Your task to perform on an android device: Turn off the flashlight Image 0: 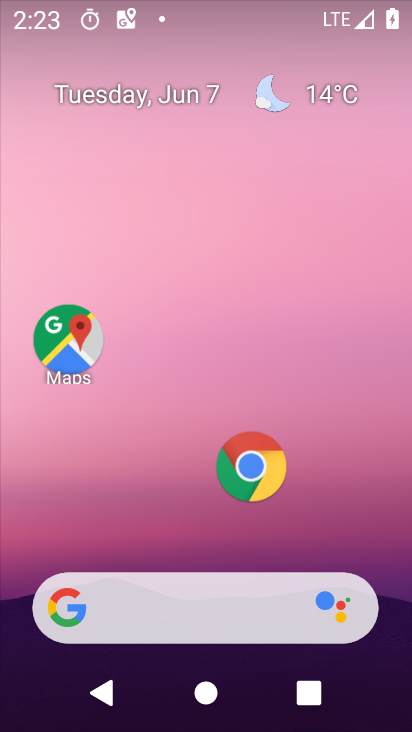
Step 0: drag from (224, 4) to (164, 527)
Your task to perform on an android device: Turn off the flashlight Image 1: 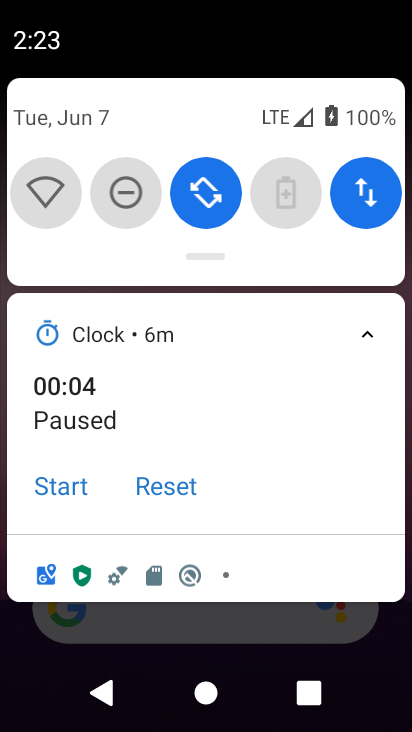
Step 1: drag from (206, 269) to (204, 687)
Your task to perform on an android device: Turn off the flashlight Image 2: 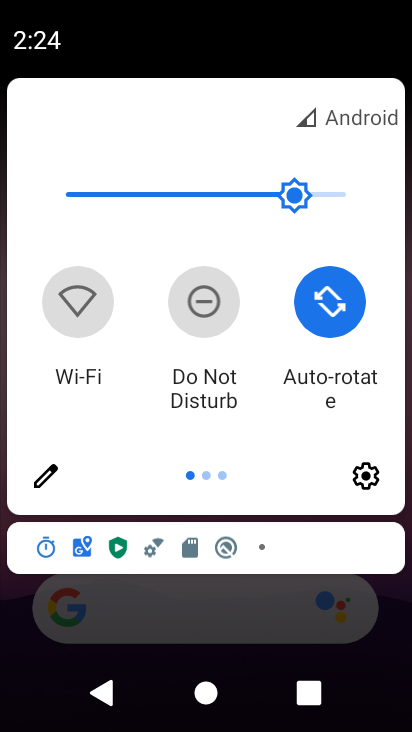
Step 2: click (46, 481)
Your task to perform on an android device: Turn off the flashlight Image 3: 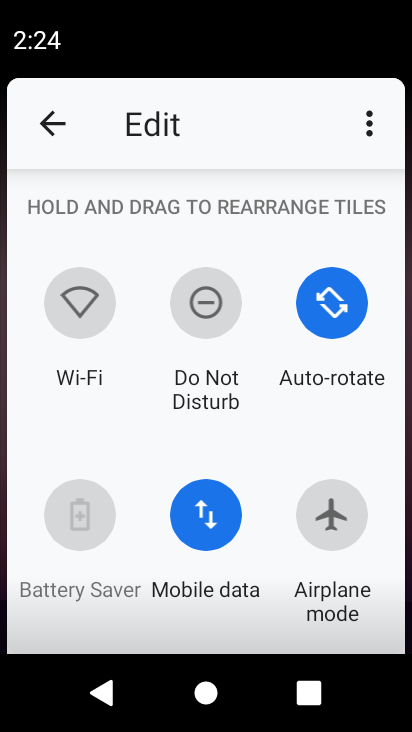
Step 3: task complete